Your task to perform on an android device: turn on translation in the chrome app Image 0: 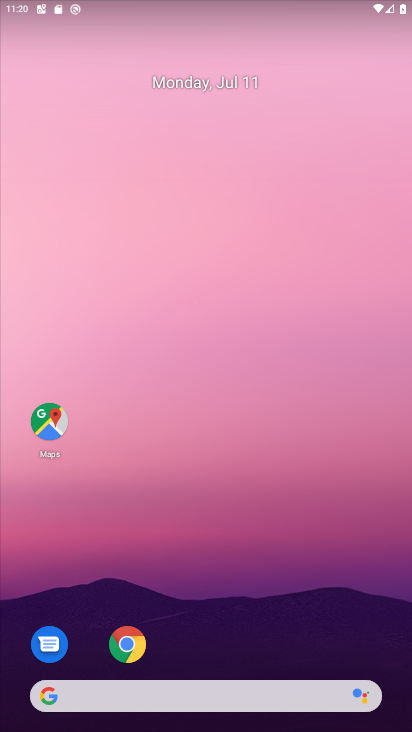
Step 0: click (128, 644)
Your task to perform on an android device: turn on translation in the chrome app Image 1: 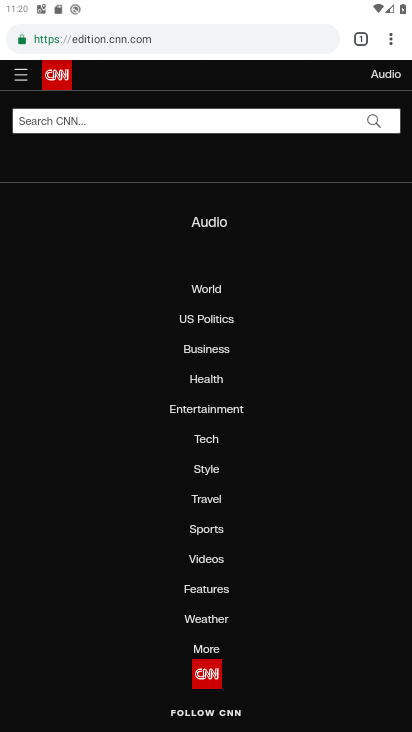
Step 1: click (388, 35)
Your task to perform on an android device: turn on translation in the chrome app Image 2: 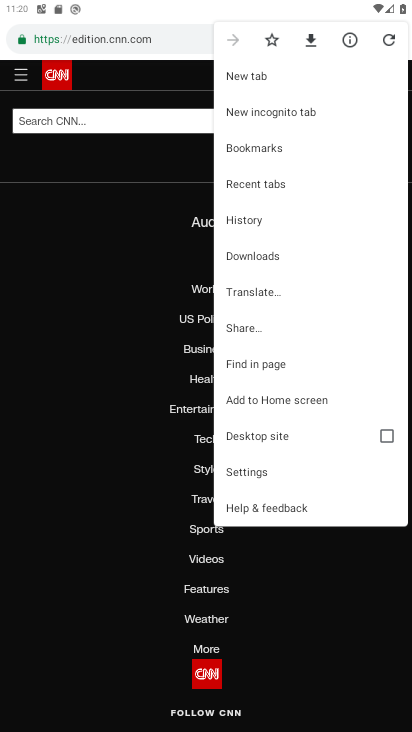
Step 2: click (276, 471)
Your task to perform on an android device: turn on translation in the chrome app Image 3: 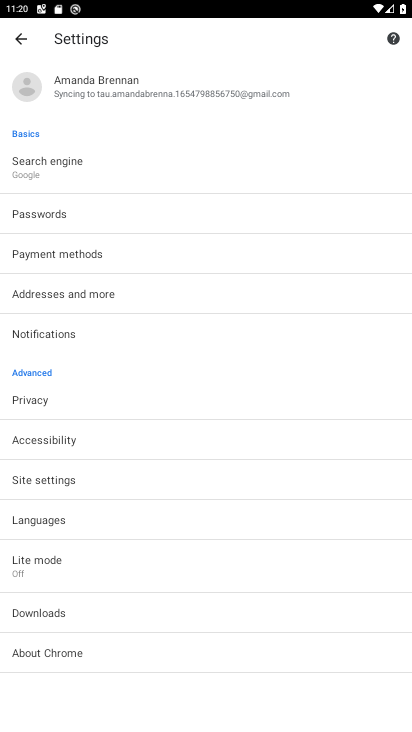
Step 3: click (57, 524)
Your task to perform on an android device: turn on translation in the chrome app Image 4: 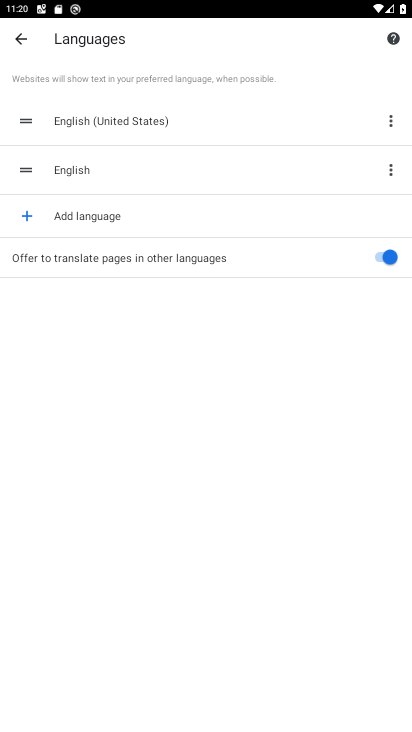
Step 4: task complete